Your task to perform on an android device: What's a good restaurant in San Diego? Image 0: 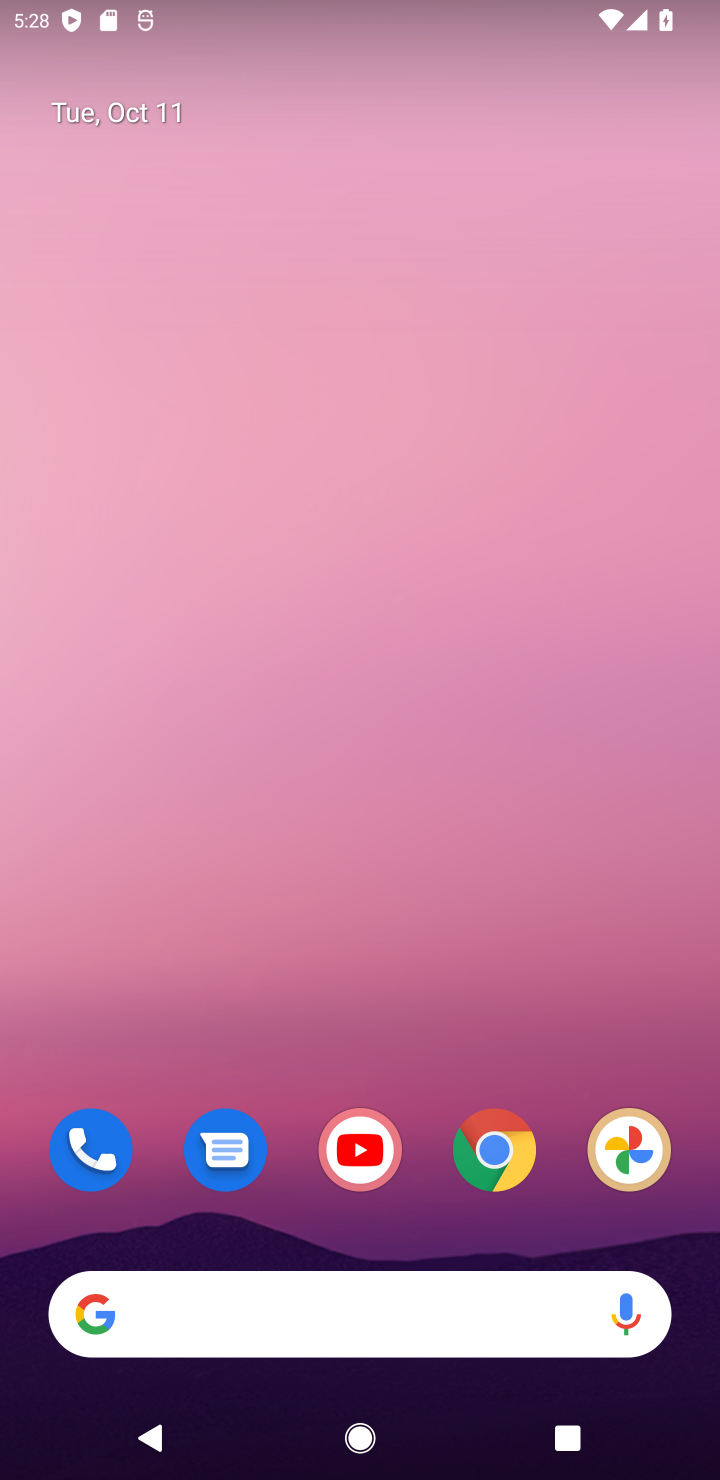
Step 0: click (511, 1145)
Your task to perform on an android device: What's a good restaurant in San Diego? Image 1: 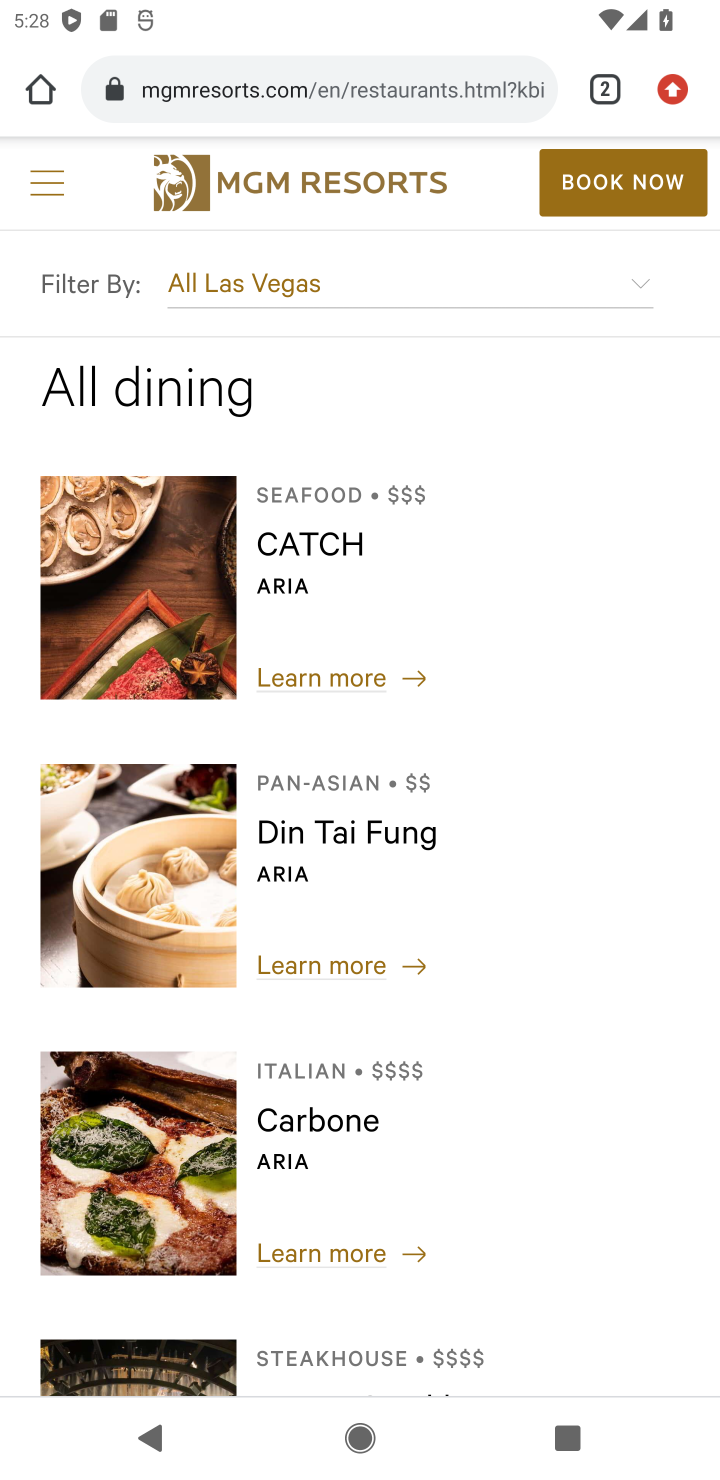
Step 1: click (325, 96)
Your task to perform on an android device: What's a good restaurant in San Diego? Image 2: 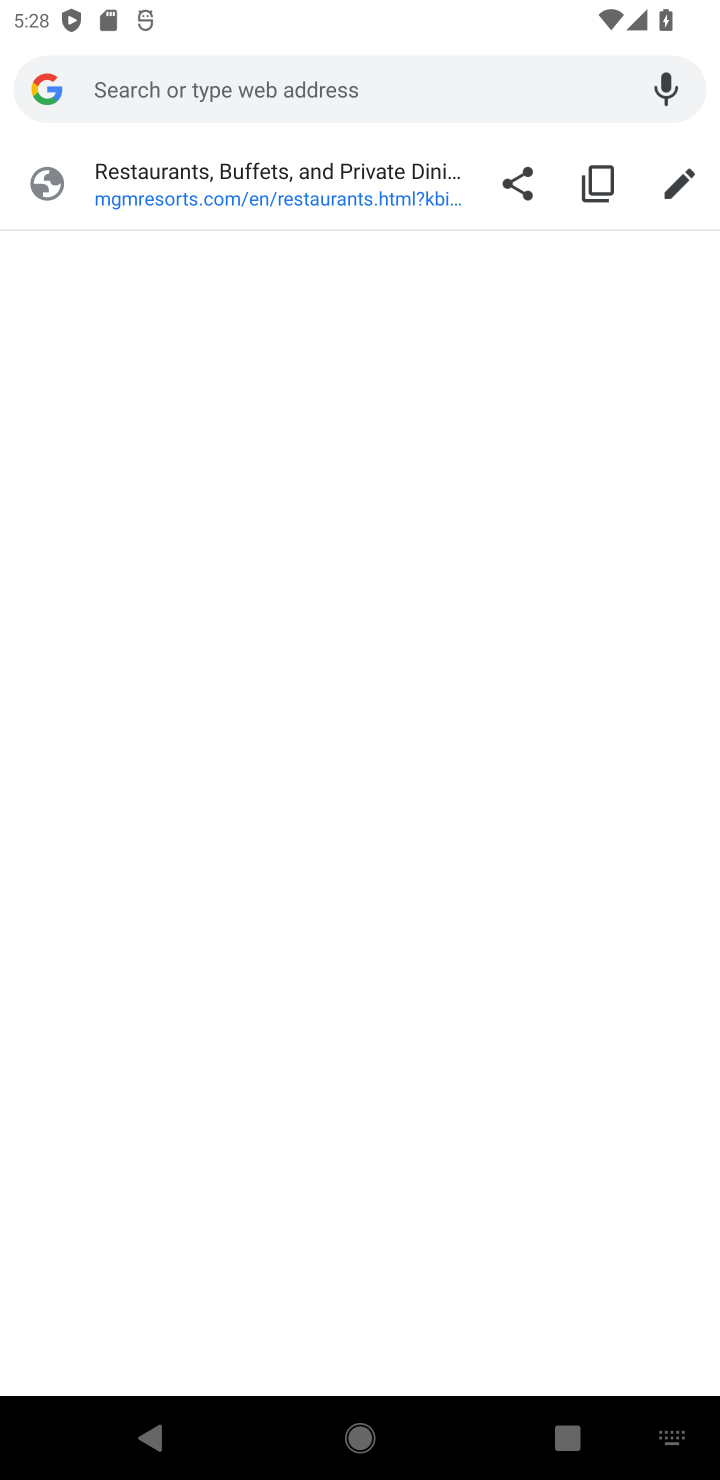
Step 2: type "a good restaurant in San Diego"
Your task to perform on an android device: What's a good restaurant in San Diego? Image 3: 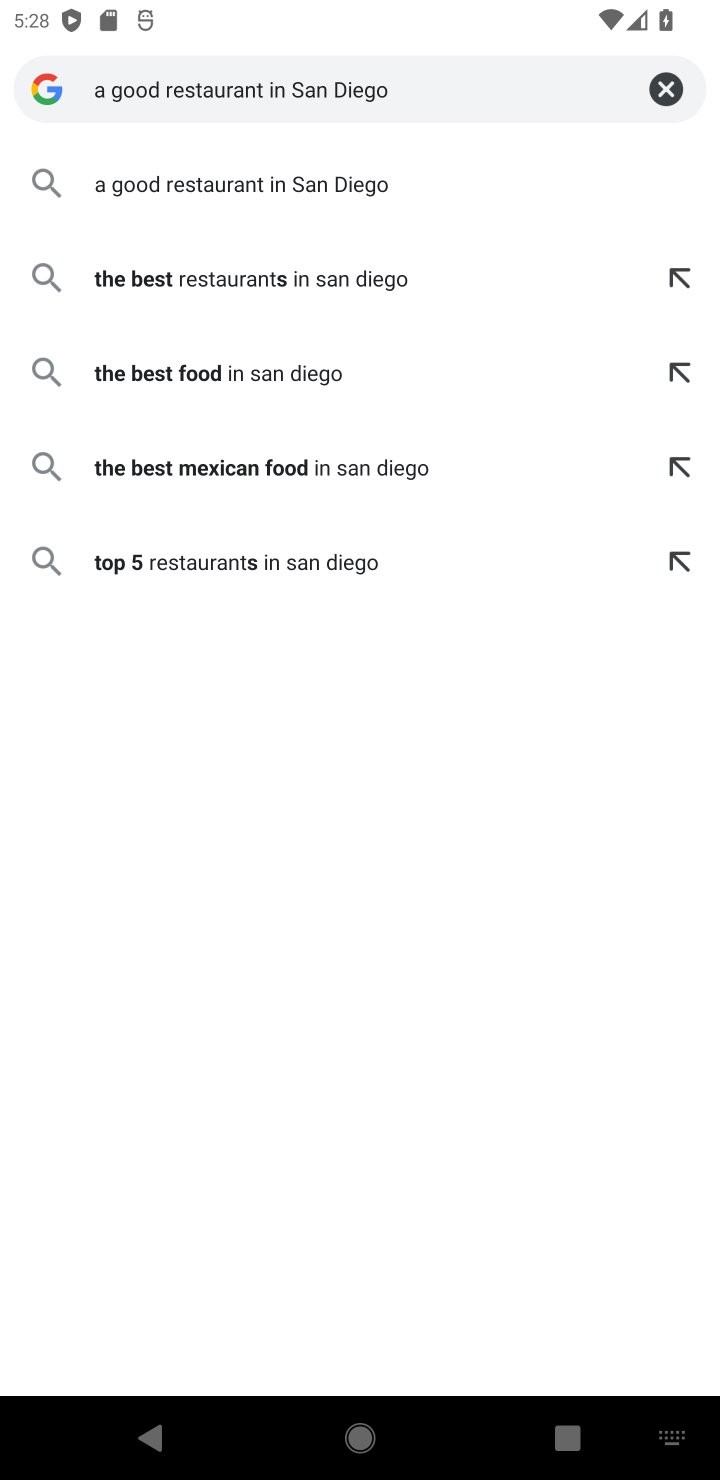
Step 3: click (232, 188)
Your task to perform on an android device: What's a good restaurant in San Diego? Image 4: 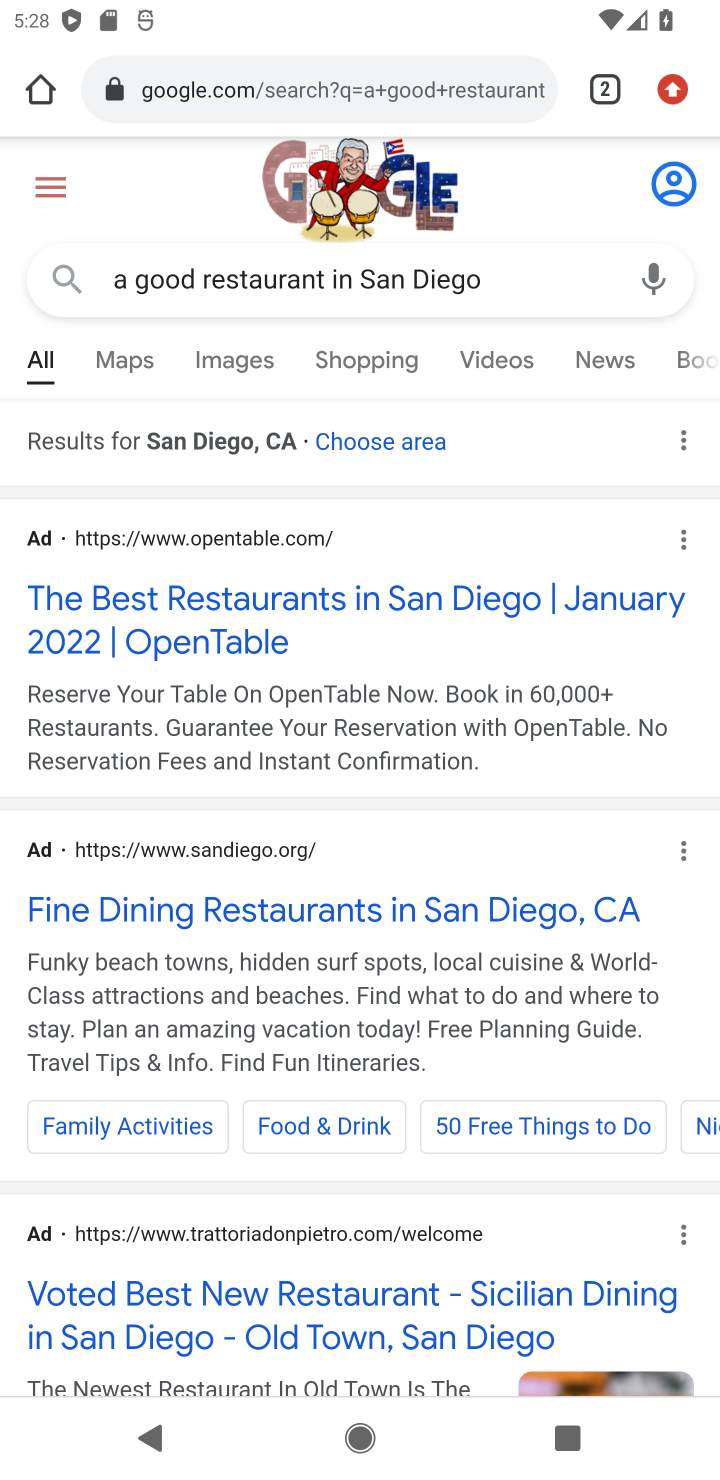
Step 4: click (240, 607)
Your task to perform on an android device: What's a good restaurant in San Diego? Image 5: 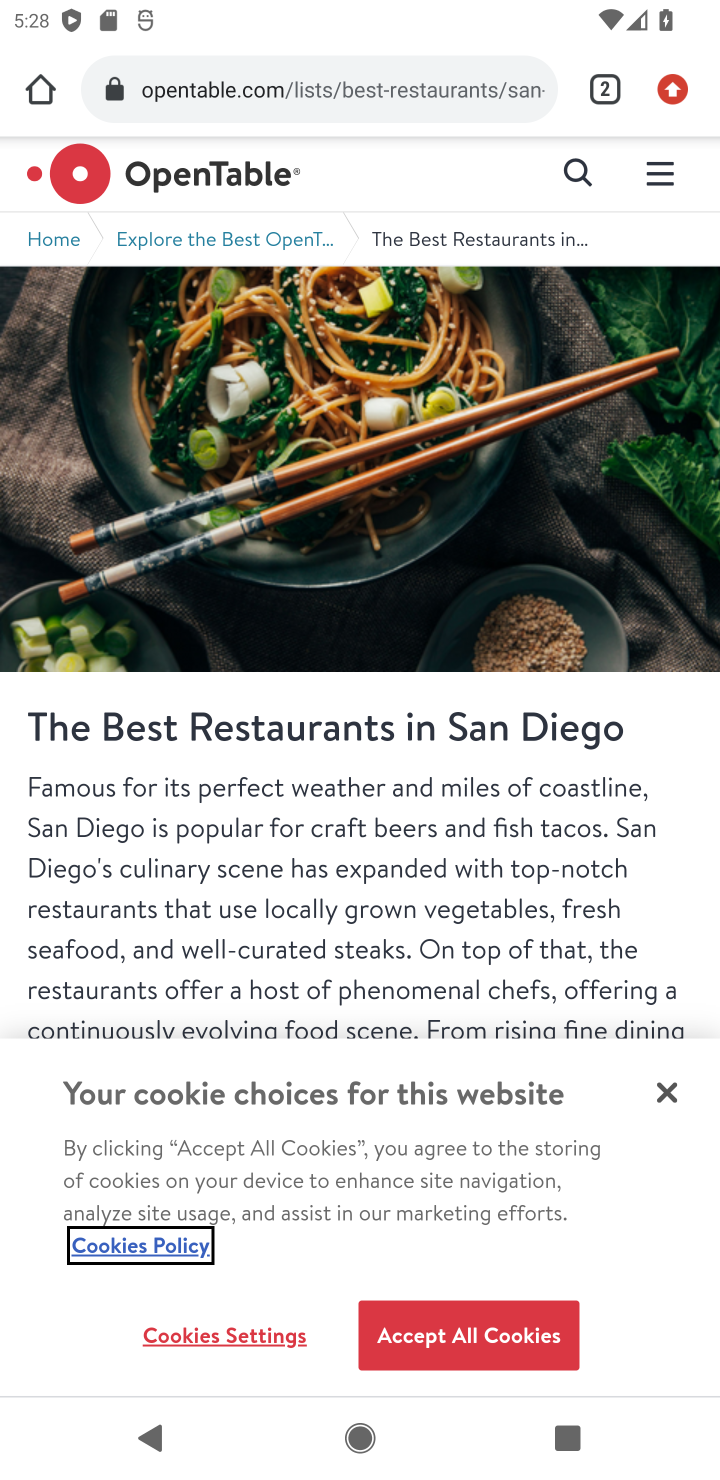
Step 5: task complete